Your task to perform on an android device: add a label to a message in the gmail app Image 0: 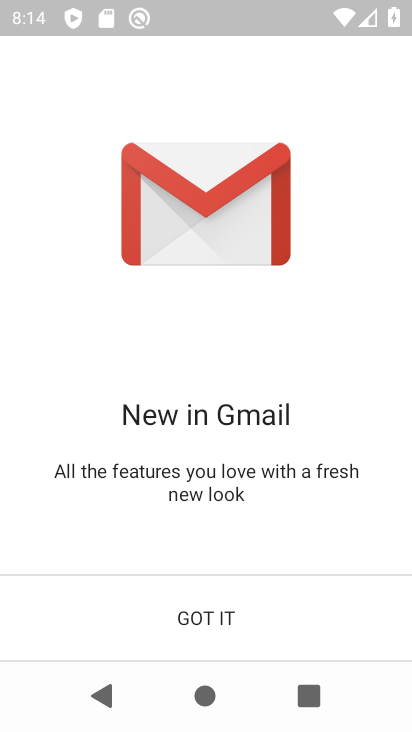
Step 0: press home button
Your task to perform on an android device: add a label to a message in the gmail app Image 1: 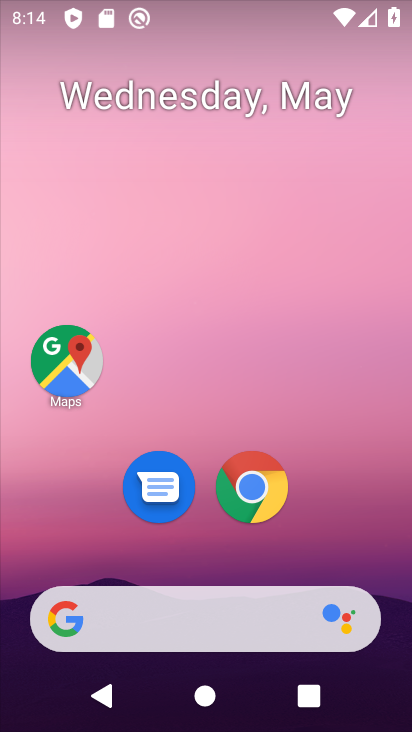
Step 1: drag from (327, 519) to (152, 145)
Your task to perform on an android device: add a label to a message in the gmail app Image 2: 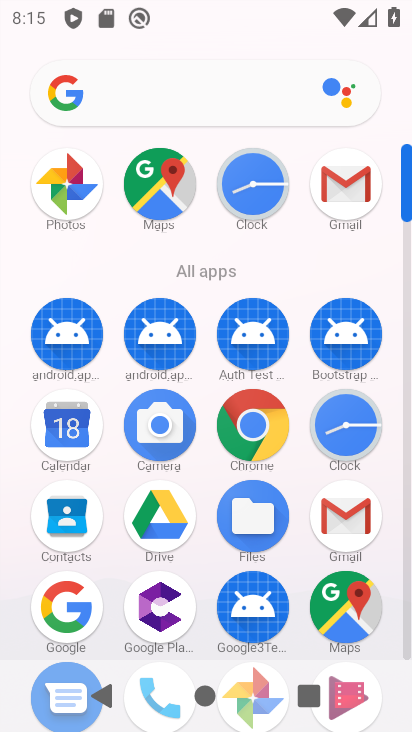
Step 2: click (350, 198)
Your task to perform on an android device: add a label to a message in the gmail app Image 3: 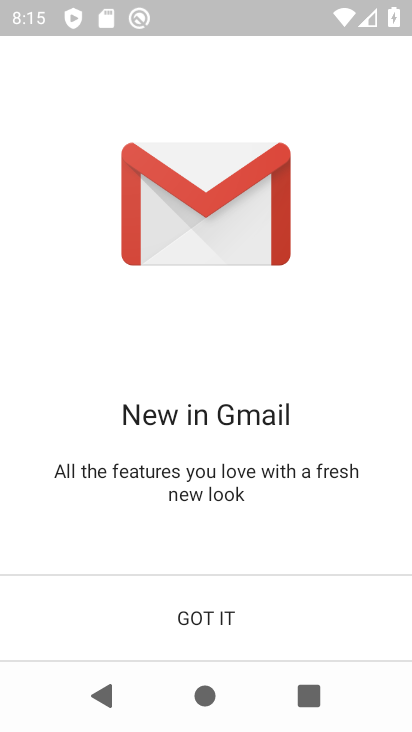
Step 3: click (207, 613)
Your task to perform on an android device: add a label to a message in the gmail app Image 4: 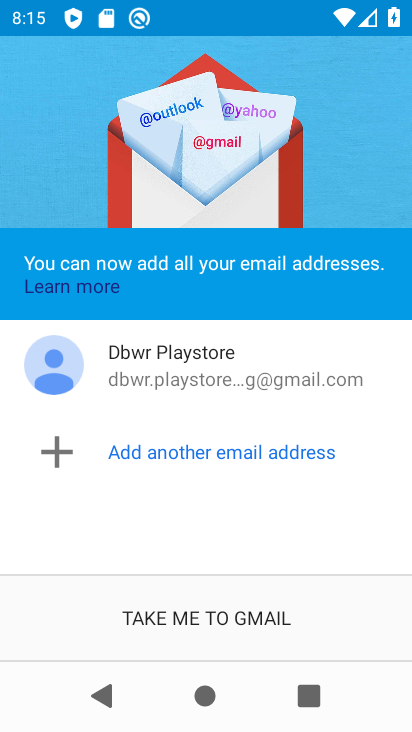
Step 4: click (207, 613)
Your task to perform on an android device: add a label to a message in the gmail app Image 5: 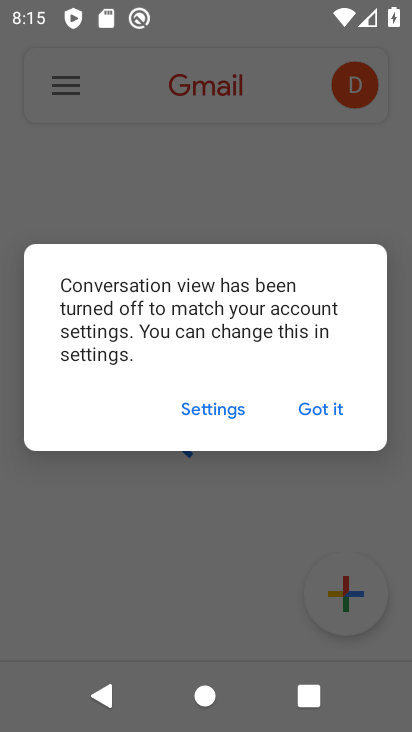
Step 5: click (322, 407)
Your task to perform on an android device: add a label to a message in the gmail app Image 6: 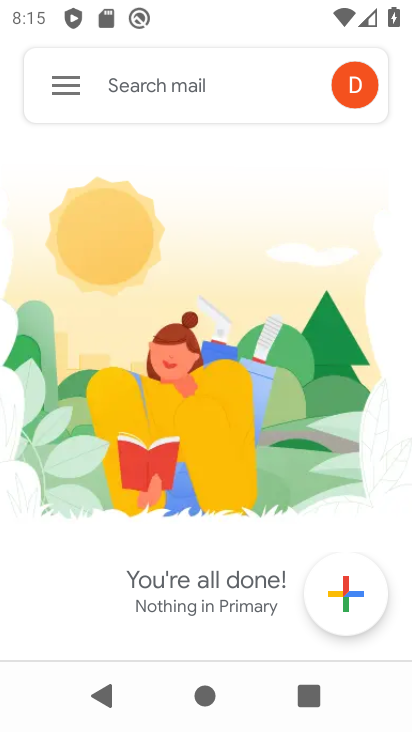
Step 6: click (55, 83)
Your task to perform on an android device: add a label to a message in the gmail app Image 7: 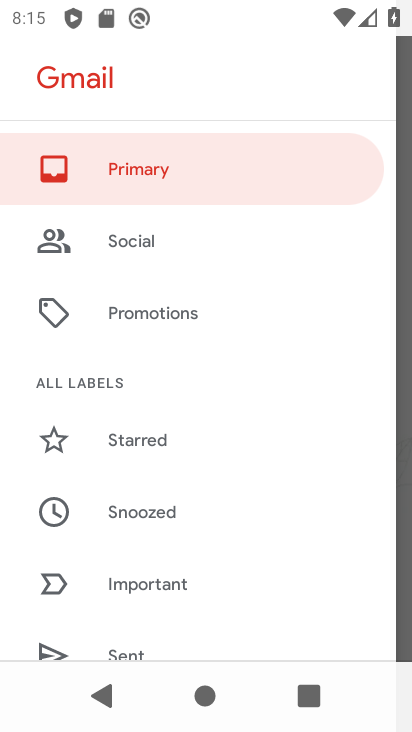
Step 7: drag from (245, 538) to (248, 99)
Your task to perform on an android device: add a label to a message in the gmail app Image 8: 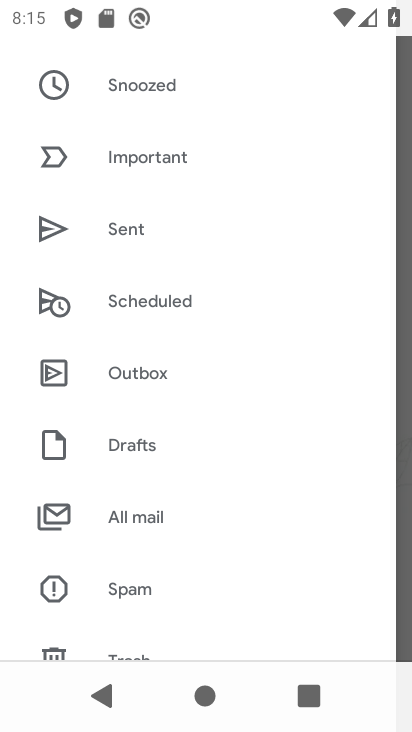
Step 8: drag from (241, 559) to (239, 318)
Your task to perform on an android device: add a label to a message in the gmail app Image 9: 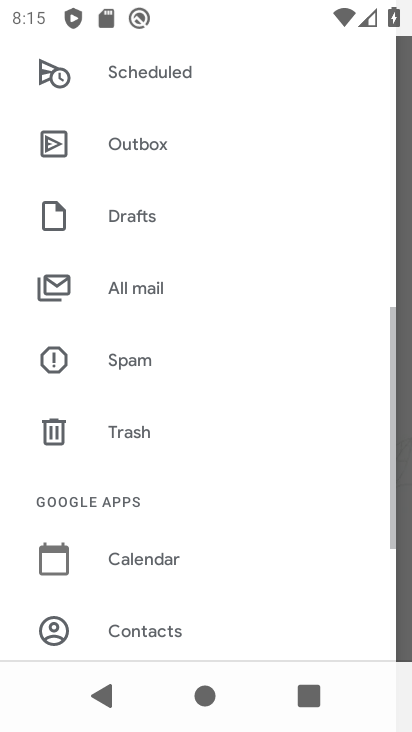
Step 9: click (146, 357)
Your task to perform on an android device: add a label to a message in the gmail app Image 10: 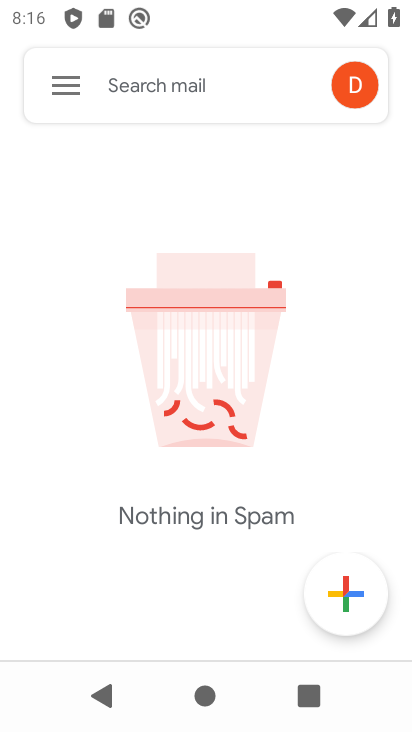
Step 10: task complete